Your task to perform on an android device: open app "Speedtest by Ookla" (install if not already installed) Image 0: 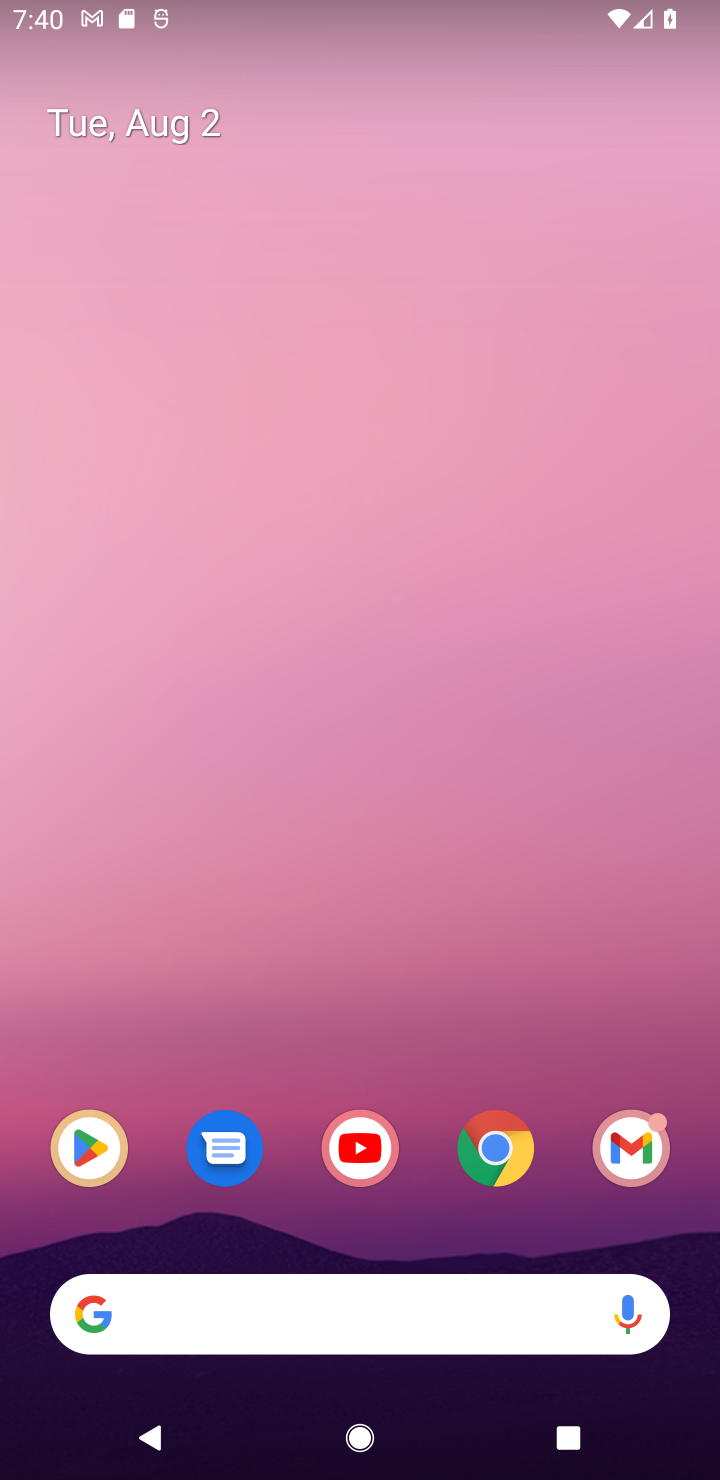
Step 0: drag from (464, 1010) to (344, 73)
Your task to perform on an android device: open app "Speedtest by Ookla" (install if not already installed) Image 1: 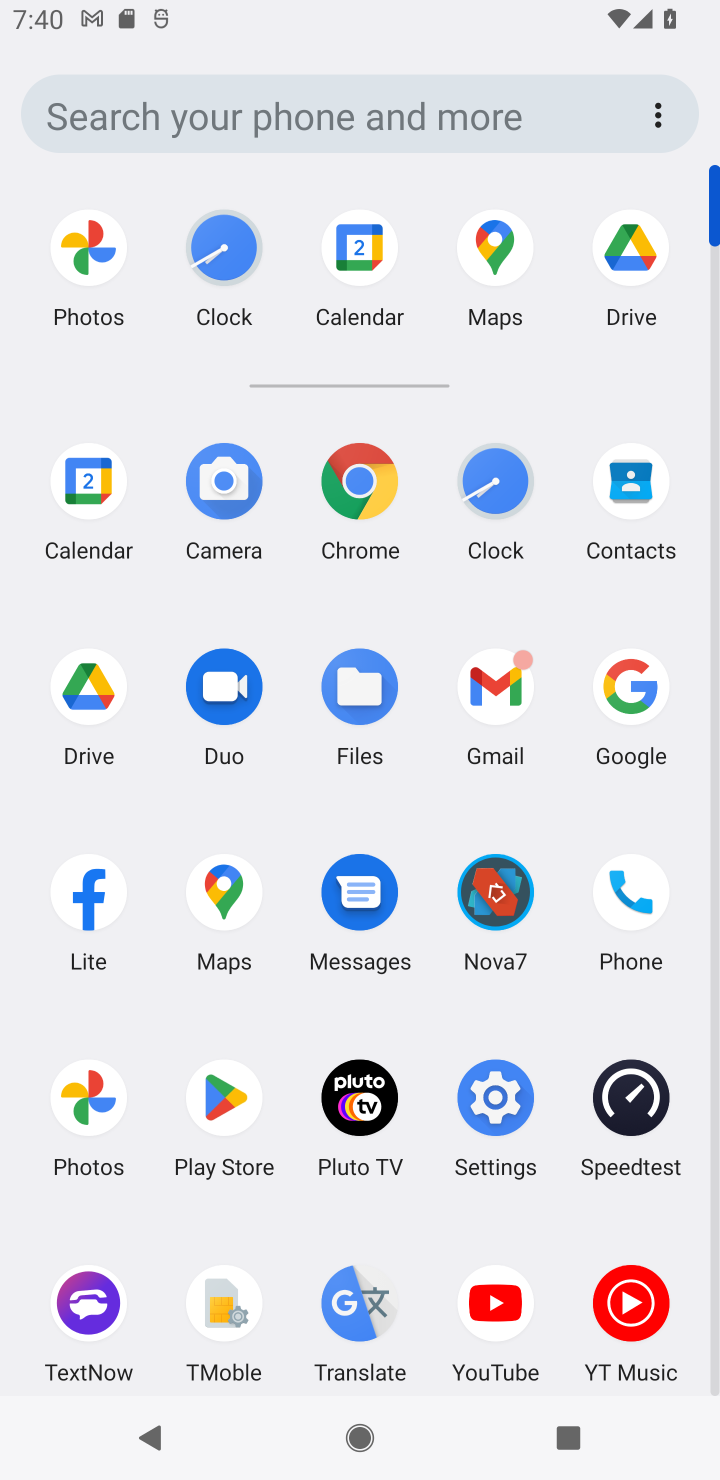
Step 1: click (213, 1128)
Your task to perform on an android device: open app "Speedtest by Ookla" (install if not already installed) Image 2: 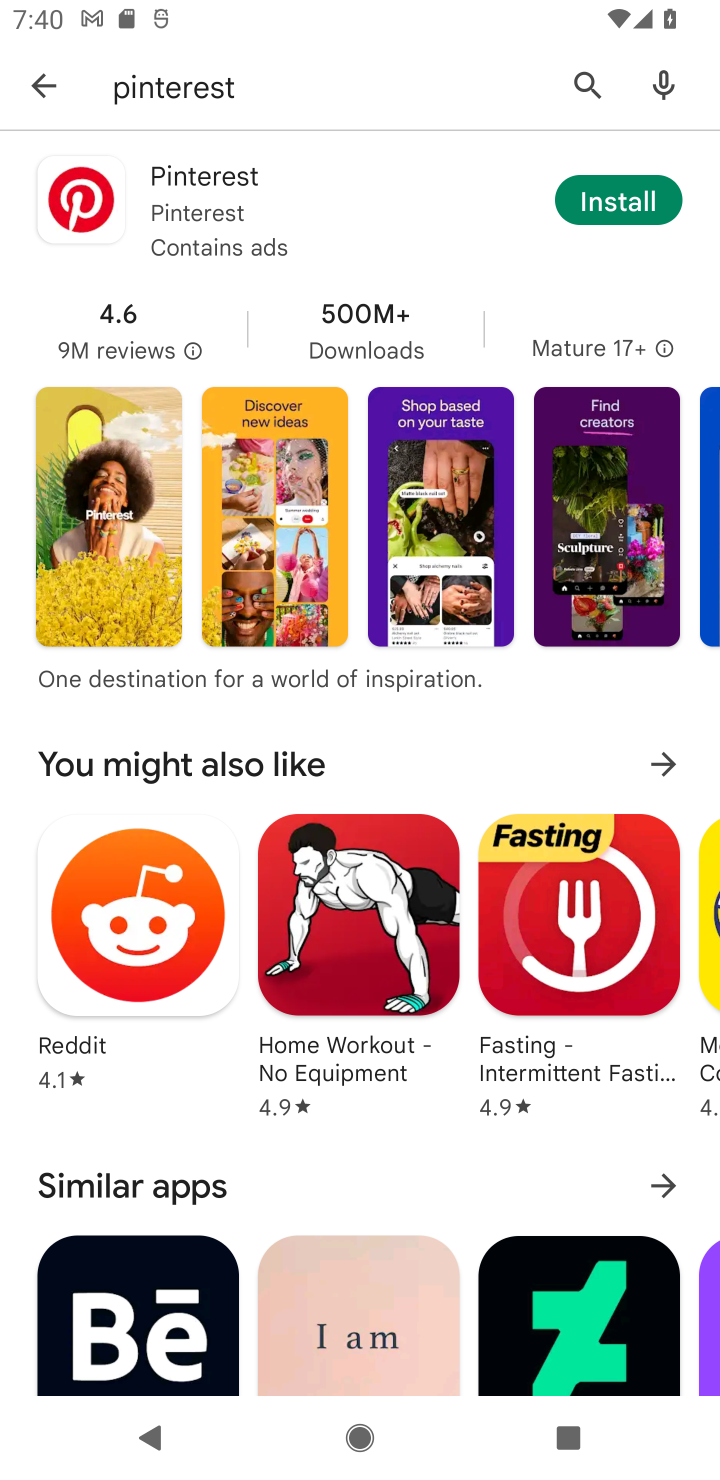
Step 2: press back button
Your task to perform on an android device: open app "Speedtest by Ookla" (install if not already installed) Image 3: 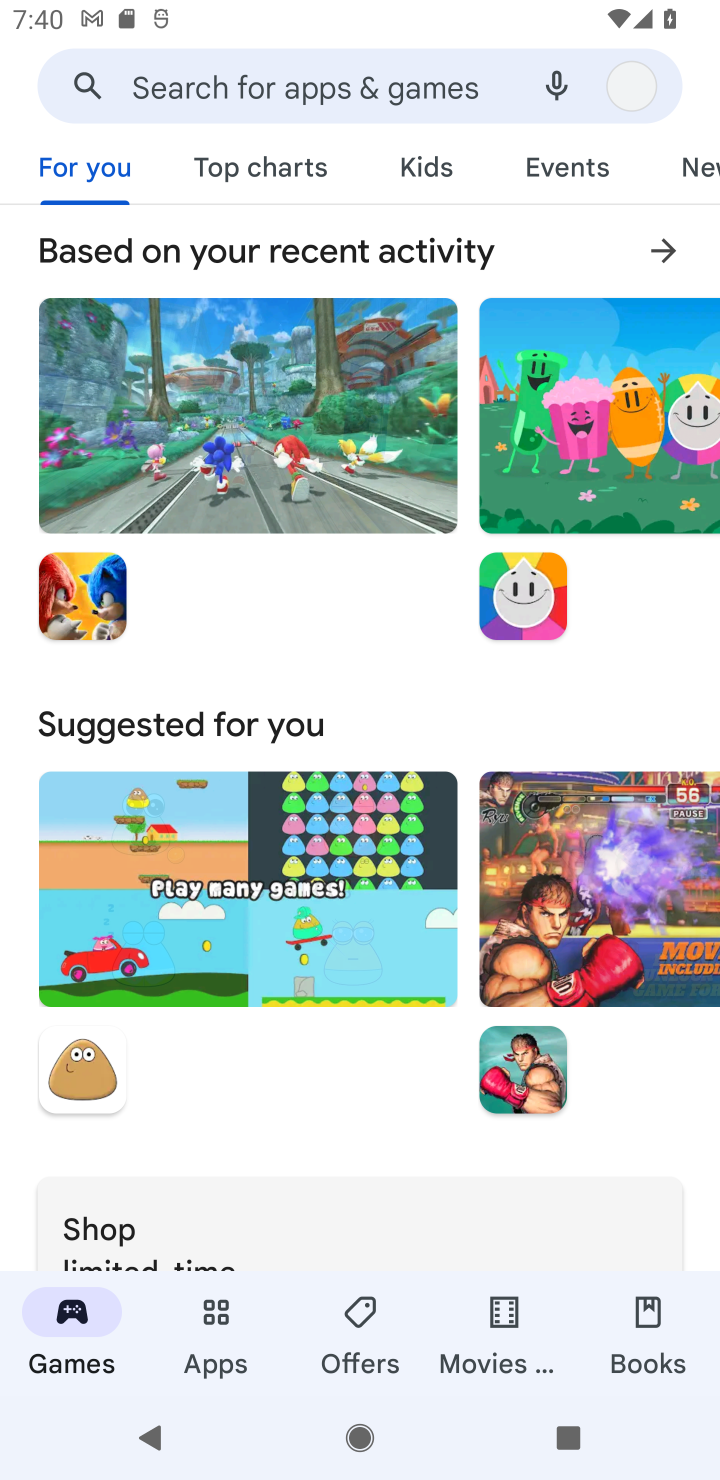
Step 3: click (245, 80)
Your task to perform on an android device: open app "Speedtest by Ookla" (install if not already installed) Image 4: 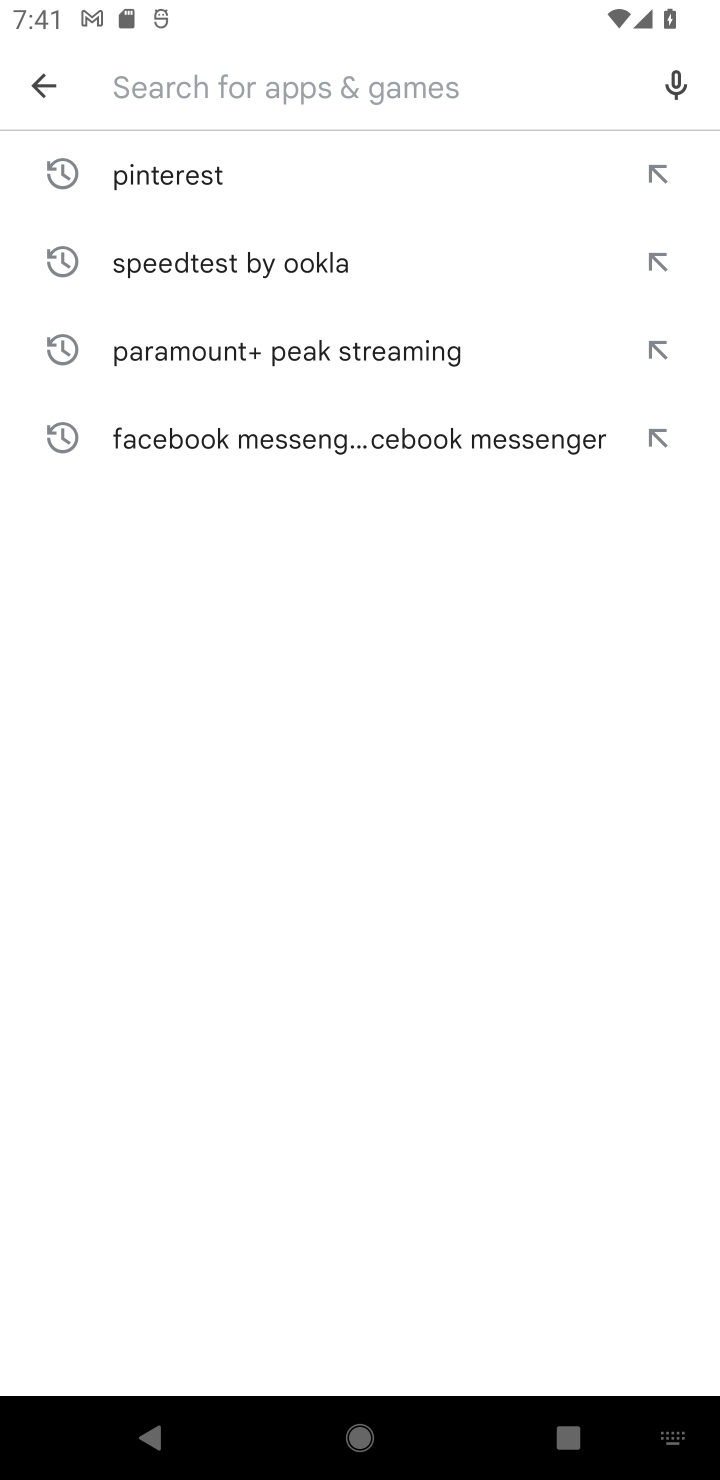
Step 4: type "Speedtest by Ookla"
Your task to perform on an android device: open app "Speedtest by Ookla" (install if not already installed) Image 5: 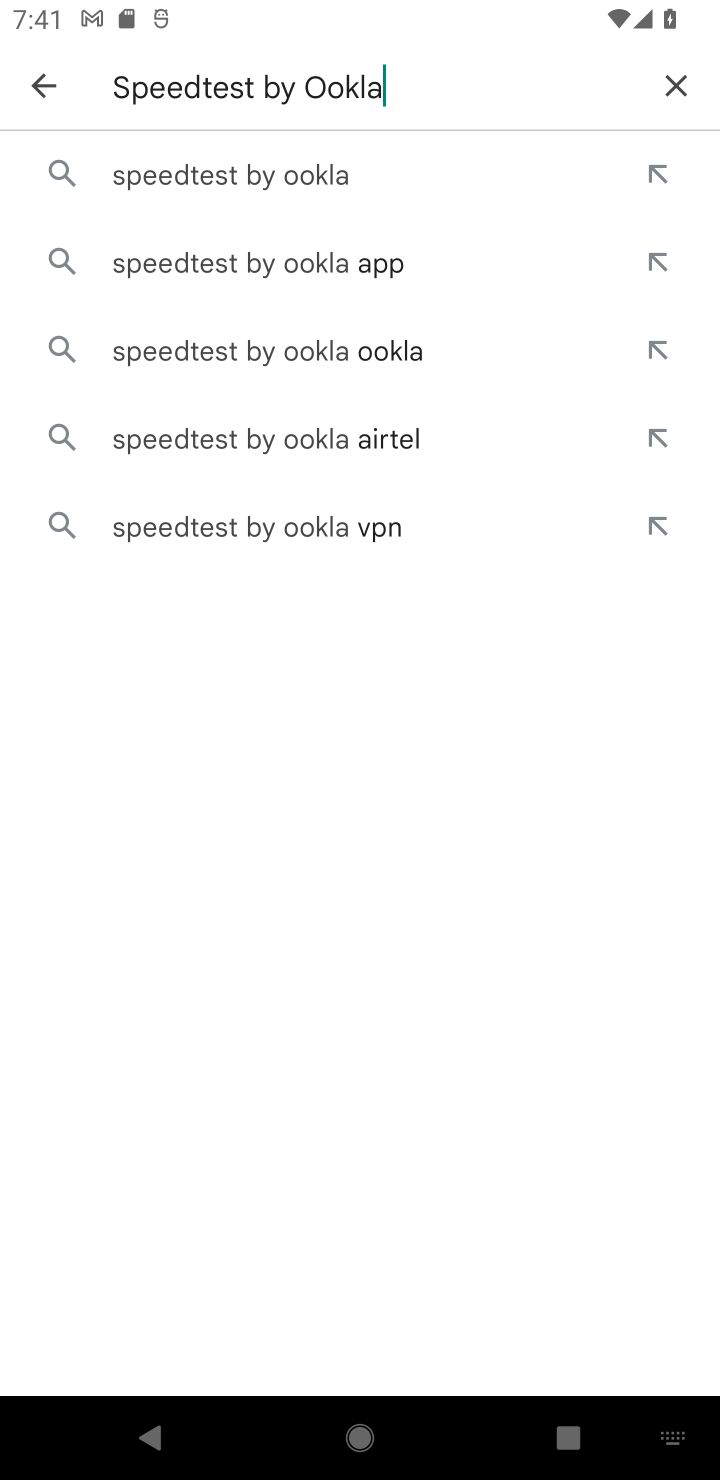
Step 5: click (218, 179)
Your task to perform on an android device: open app "Speedtest by Ookla" (install if not already installed) Image 6: 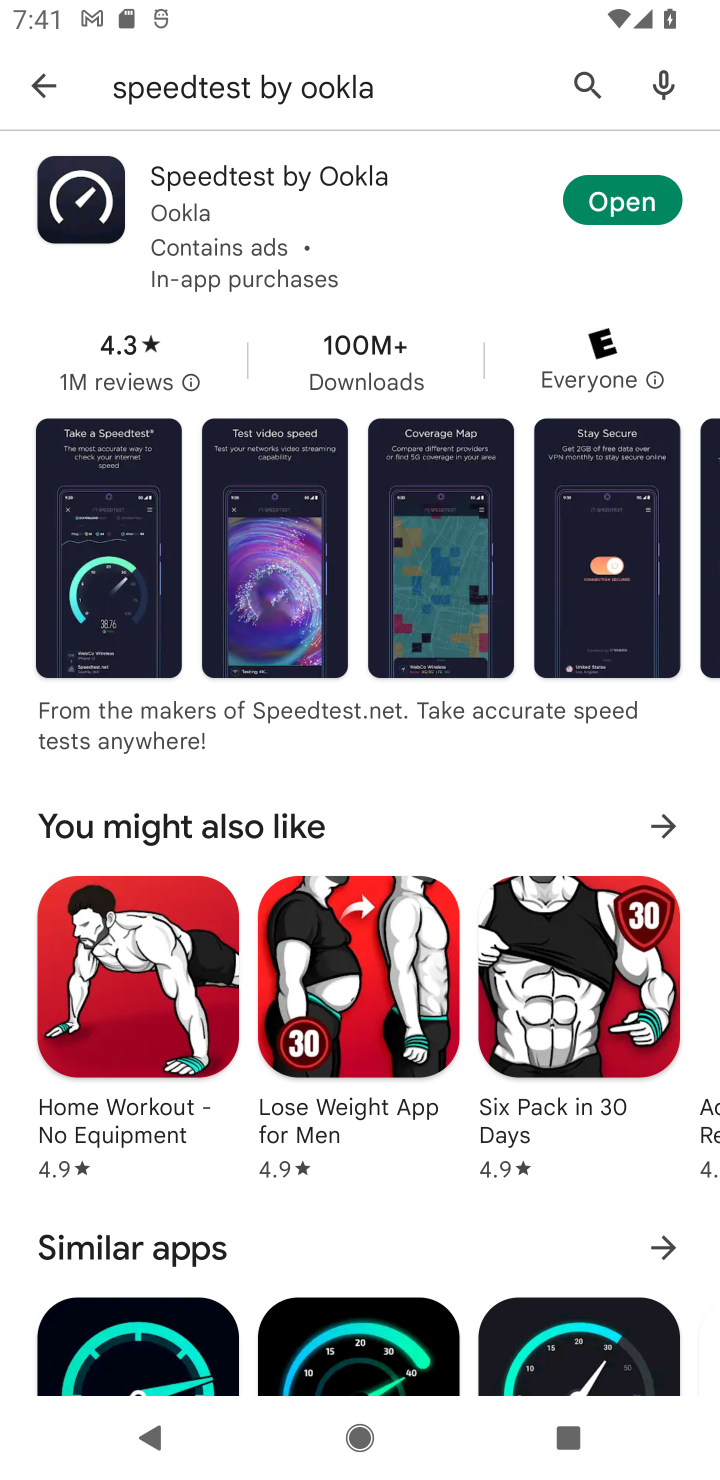
Step 6: click (629, 205)
Your task to perform on an android device: open app "Speedtest by Ookla" (install if not already installed) Image 7: 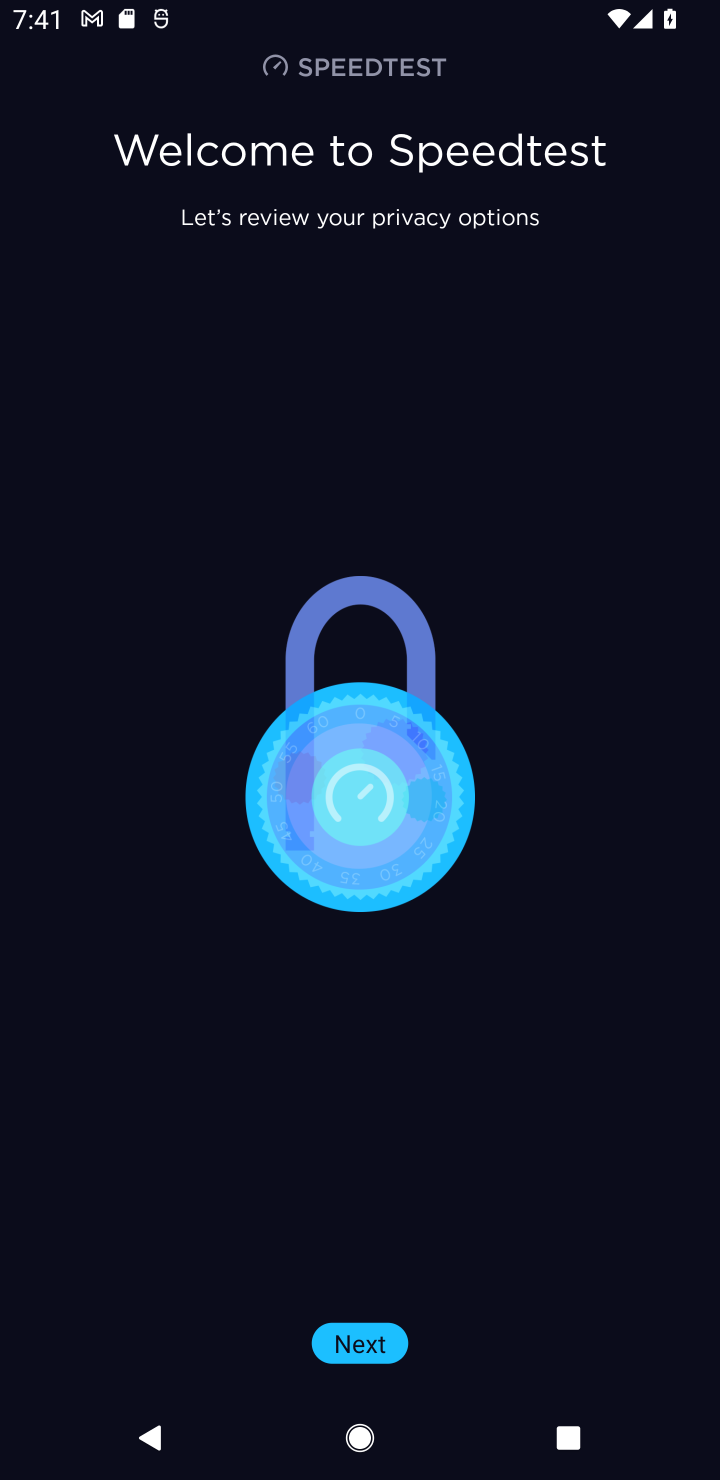
Step 7: task complete